Your task to perform on an android device: check battery use Image 0: 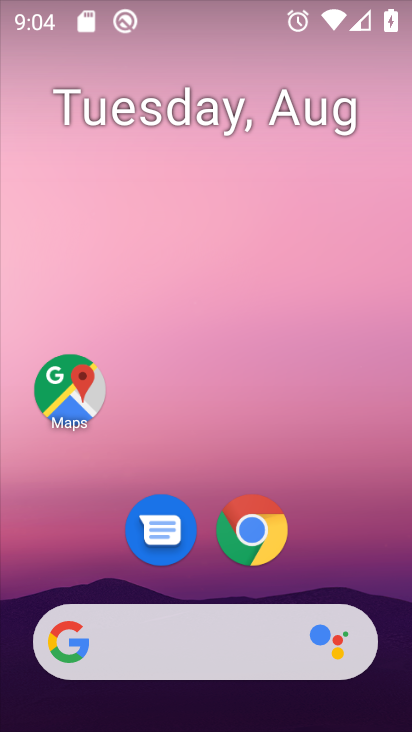
Step 0: drag from (338, 522) to (250, 27)
Your task to perform on an android device: check battery use Image 1: 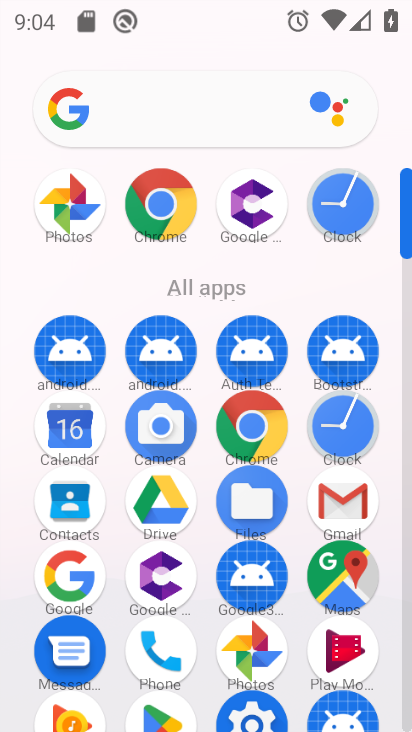
Step 1: click (251, 703)
Your task to perform on an android device: check battery use Image 2: 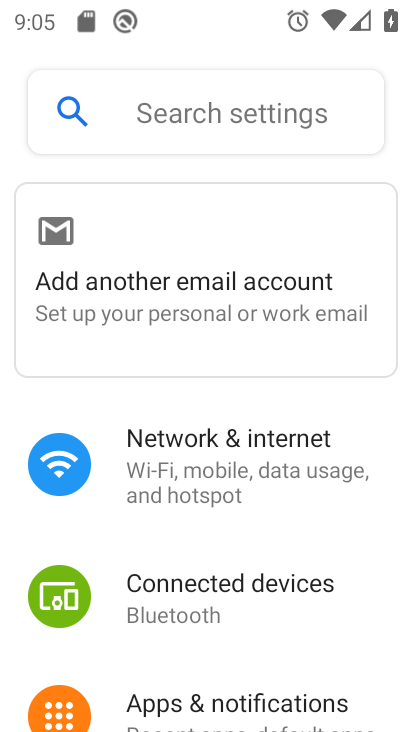
Step 2: drag from (231, 665) to (233, 191)
Your task to perform on an android device: check battery use Image 3: 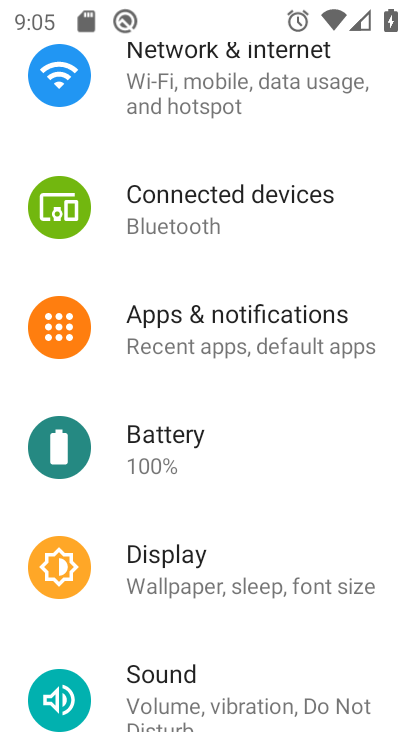
Step 3: click (149, 442)
Your task to perform on an android device: check battery use Image 4: 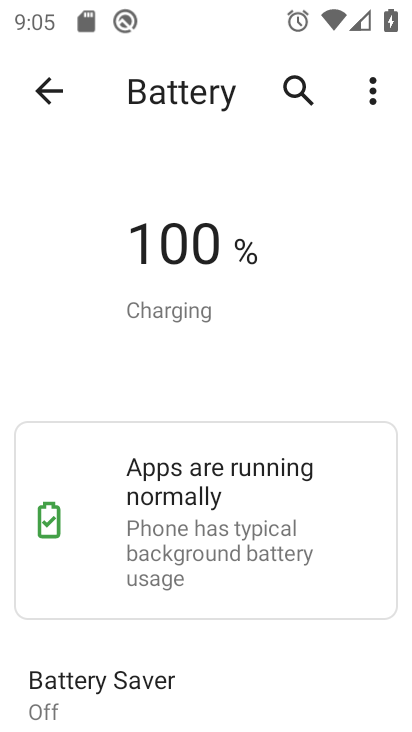
Step 4: click (373, 84)
Your task to perform on an android device: check battery use Image 5: 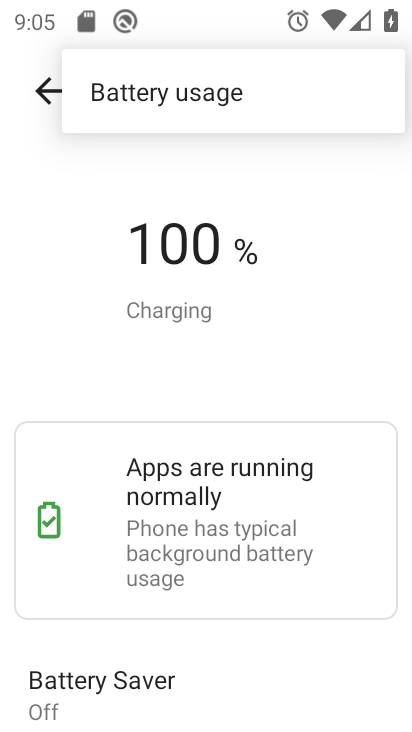
Step 5: click (209, 102)
Your task to perform on an android device: check battery use Image 6: 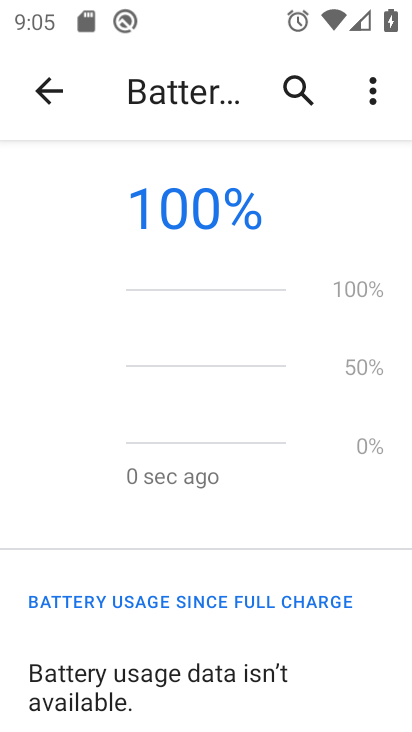
Step 6: task complete